Your task to perform on an android device: Open eBay Image 0: 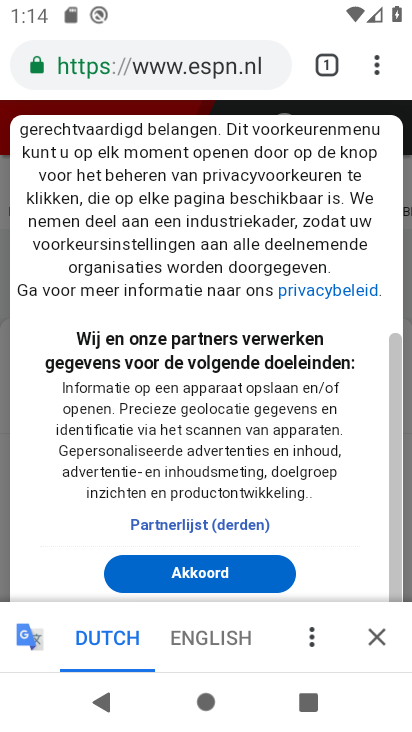
Step 0: press home button
Your task to perform on an android device: Open eBay Image 1: 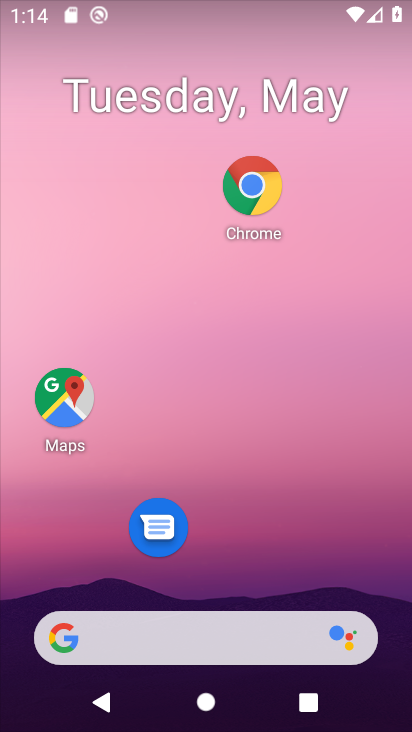
Step 1: click (252, 186)
Your task to perform on an android device: Open eBay Image 2: 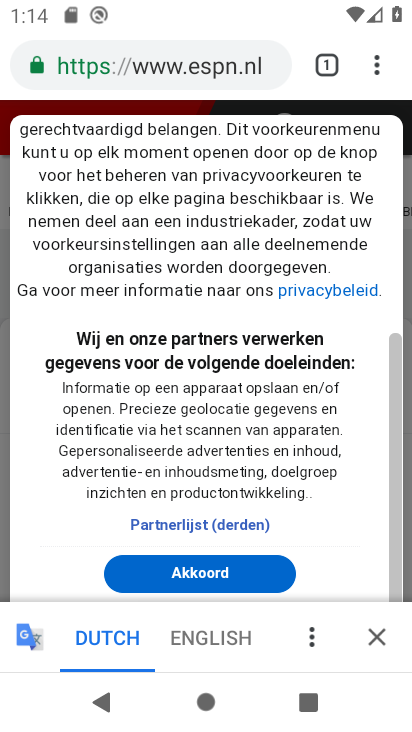
Step 2: click (374, 62)
Your task to perform on an android device: Open eBay Image 3: 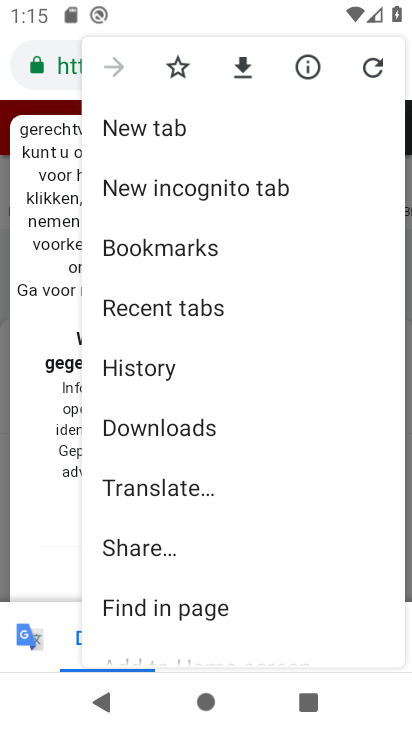
Step 3: click (158, 120)
Your task to perform on an android device: Open eBay Image 4: 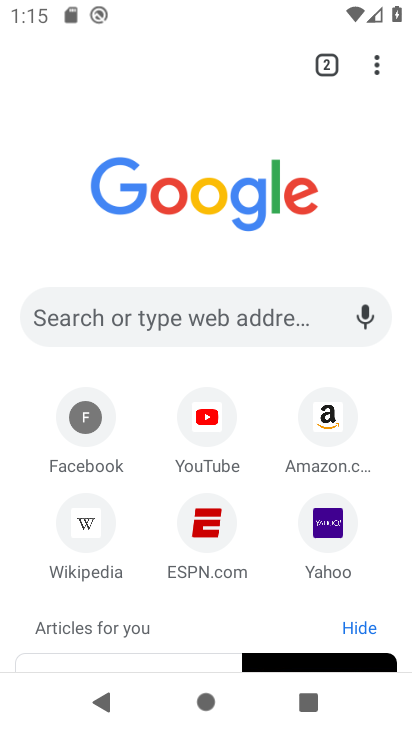
Step 4: click (158, 325)
Your task to perform on an android device: Open eBay Image 5: 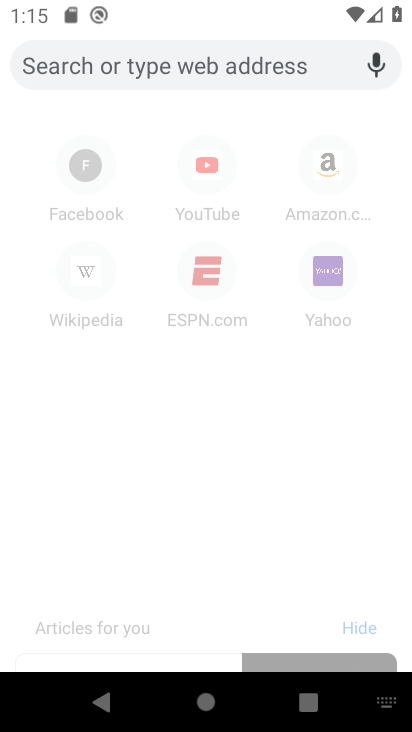
Step 5: type "ebay"
Your task to perform on an android device: Open eBay Image 6: 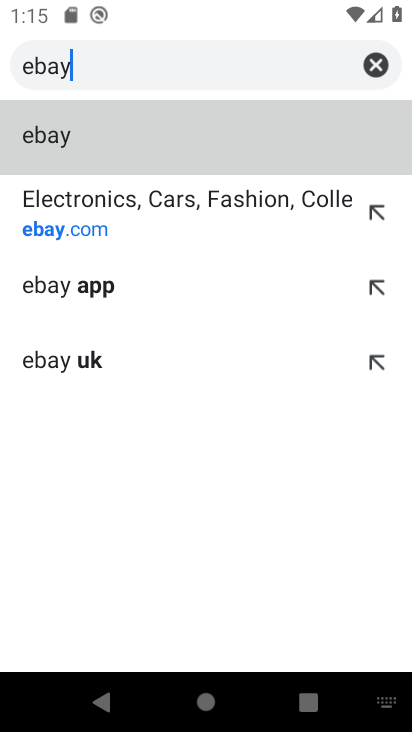
Step 6: click (46, 140)
Your task to perform on an android device: Open eBay Image 7: 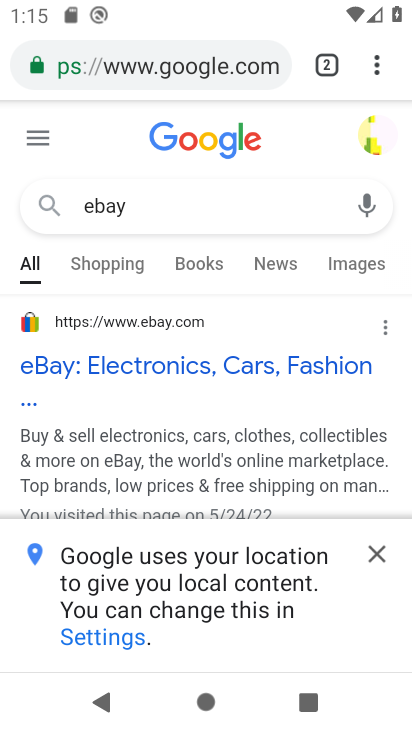
Step 7: click (369, 547)
Your task to perform on an android device: Open eBay Image 8: 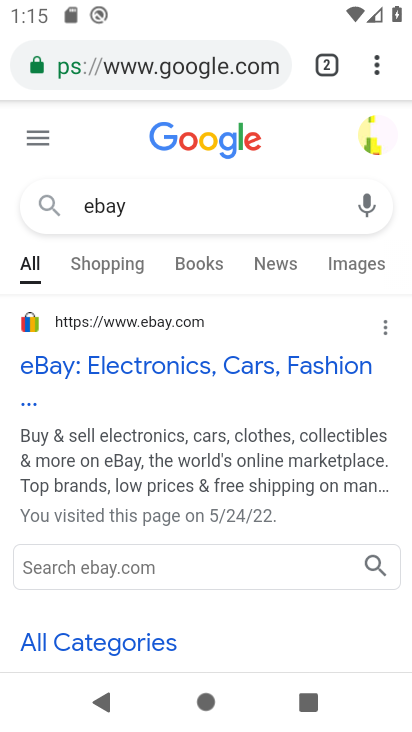
Step 8: click (370, 547)
Your task to perform on an android device: Open eBay Image 9: 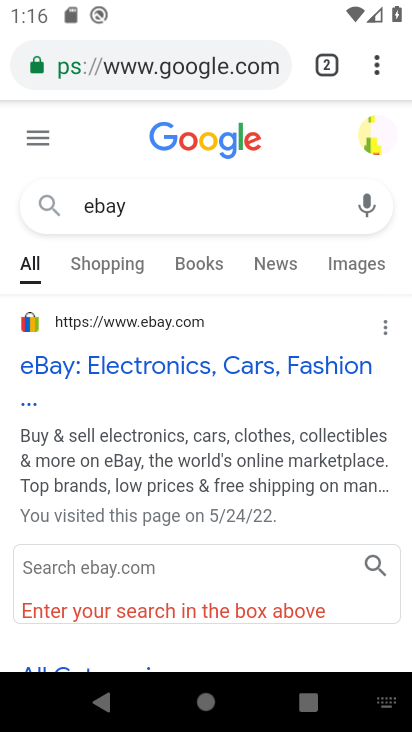
Step 9: task complete